Your task to perform on an android device: Is it going to rain tomorrow? Image 0: 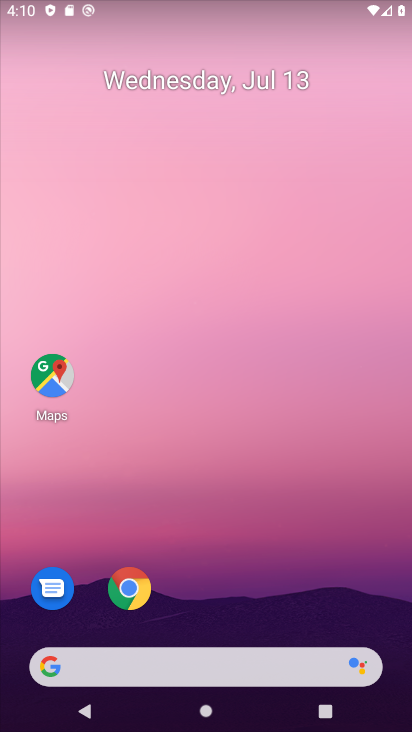
Step 0: click (142, 674)
Your task to perform on an android device: Is it going to rain tomorrow? Image 1: 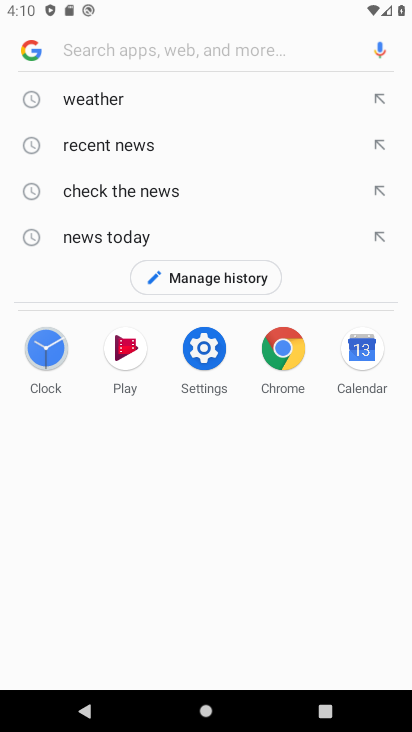
Step 1: type "Is it going to rain tomorrow?"
Your task to perform on an android device: Is it going to rain tomorrow? Image 2: 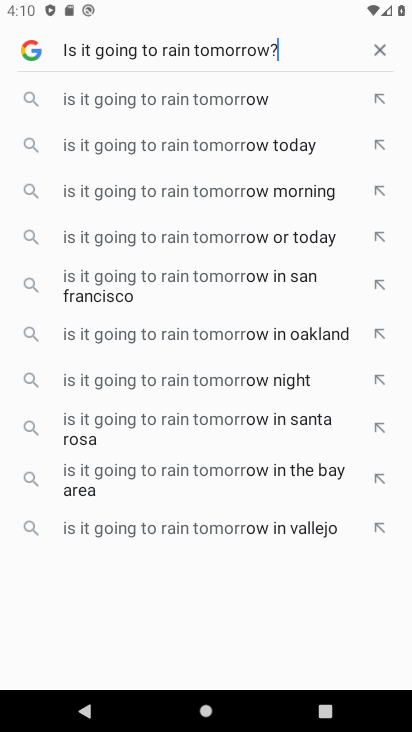
Step 2: type ""
Your task to perform on an android device: Is it going to rain tomorrow? Image 3: 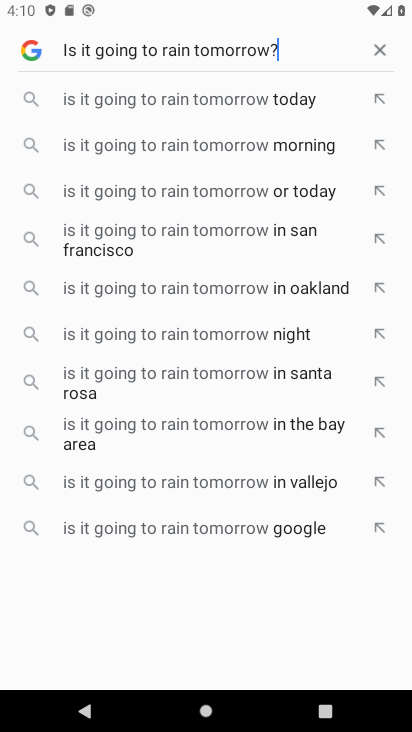
Step 3: type ""
Your task to perform on an android device: Is it going to rain tomorrow? Image 4: 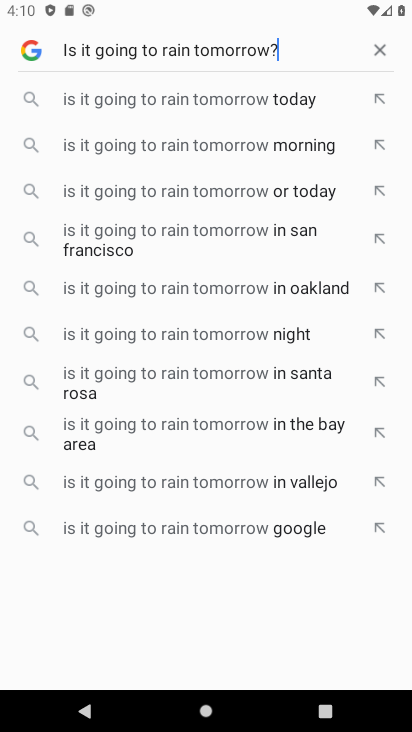
Step 4: task complete